Your task to perform on an android device: Open network settings Image 0: 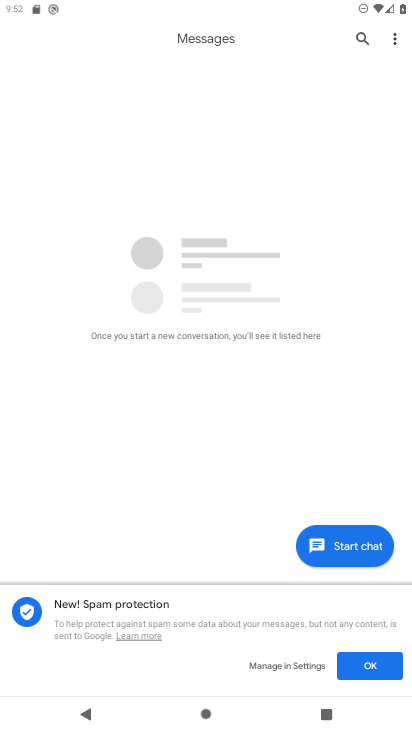
Step 0: press home button
Your task to perform on an android device: Open network settings Image 1: 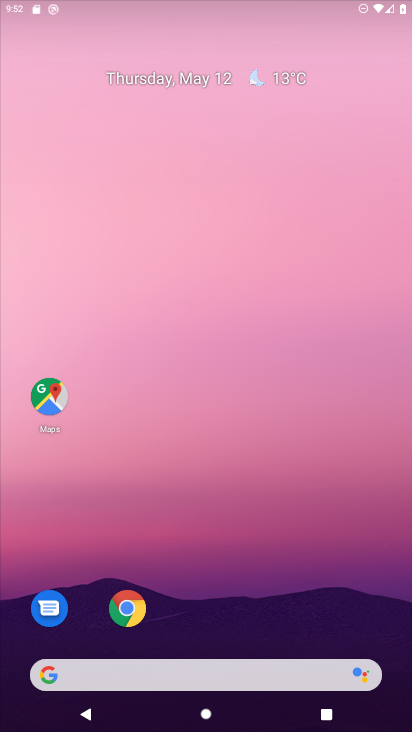
Step 1: drag from (221, 615) to (218, 113)
Your task to perform on an android device: Open network settings Image 2: 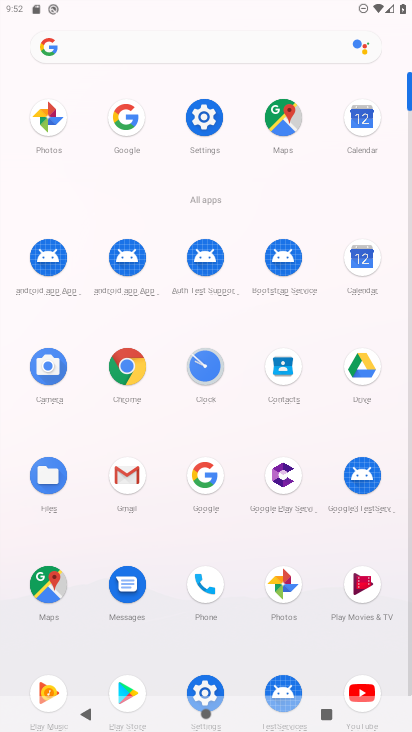
Step 2: click (206, 118)
Your task to perform on an android device: Open network settings Image 3: 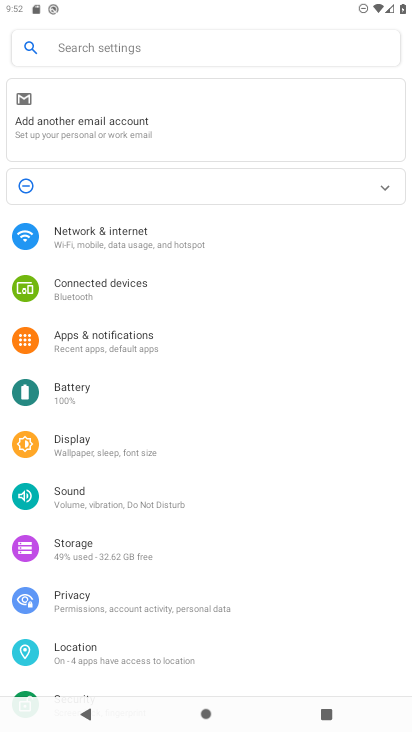
Step 3: click (124, 234)
Your task to perform on an android device: Open network settings Image 4: 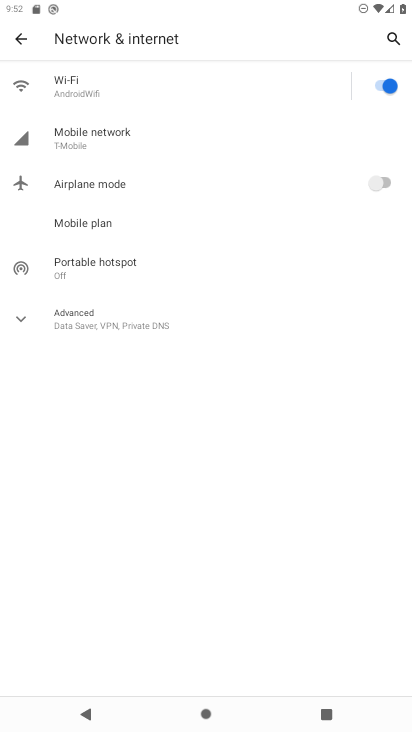
Step 4: click (71, 143)
Your task to perform on an android device: Open network settings Image 5: 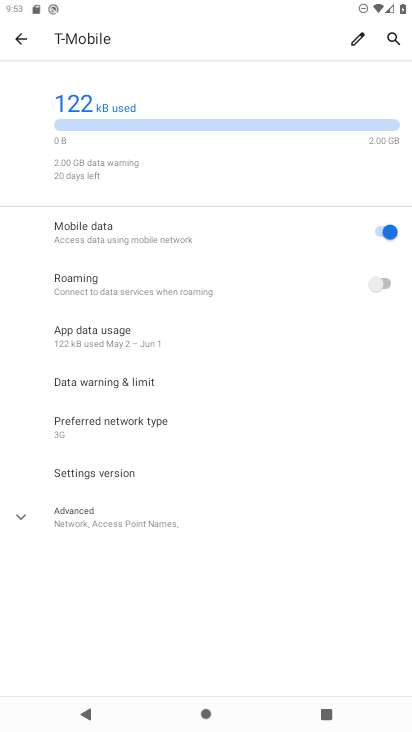
Step 5: task complete